Your task to perform on an android device: toggle data saver in the chrome app Image 0: 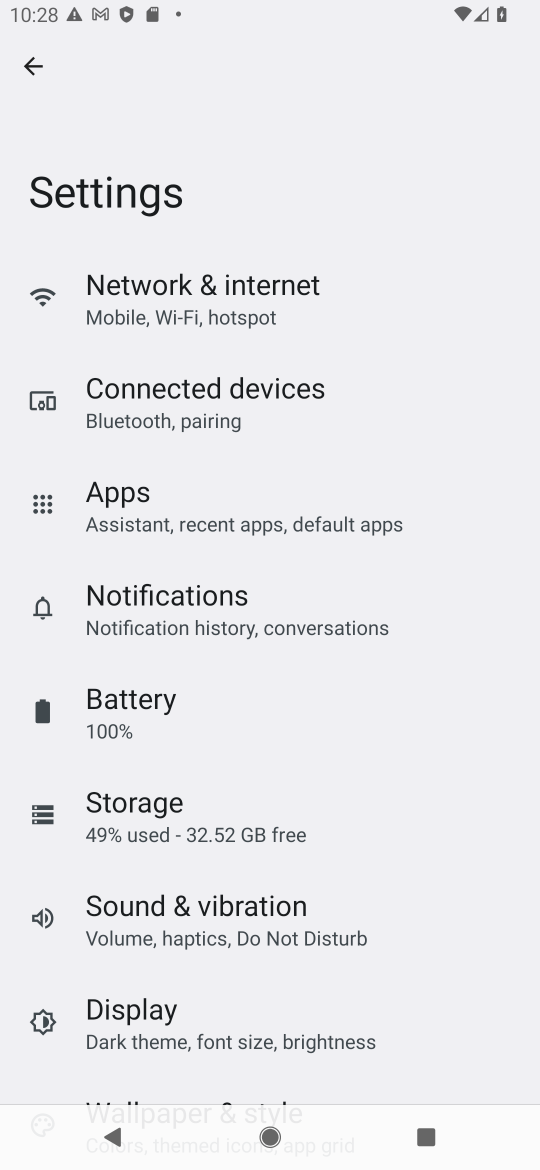
Step 0: press home button
Your task to perform on an android device: toggle data saver in the chrome app Image 1: 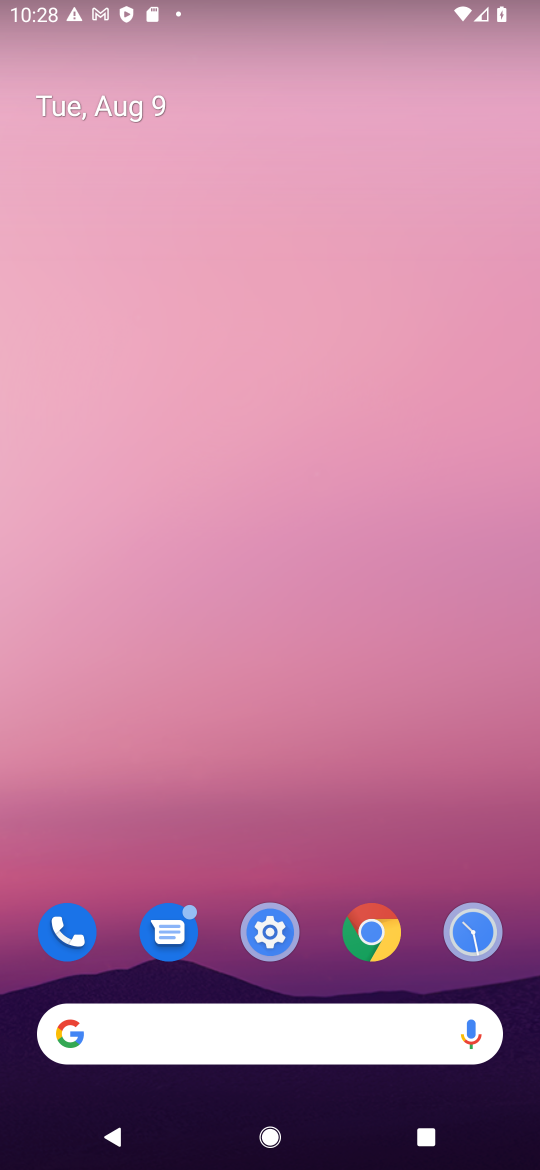
Step 1: drag from (296, 905) to (306, 7)
Your task to perform on an android device: toggle data saver in the chrome app Image 2: 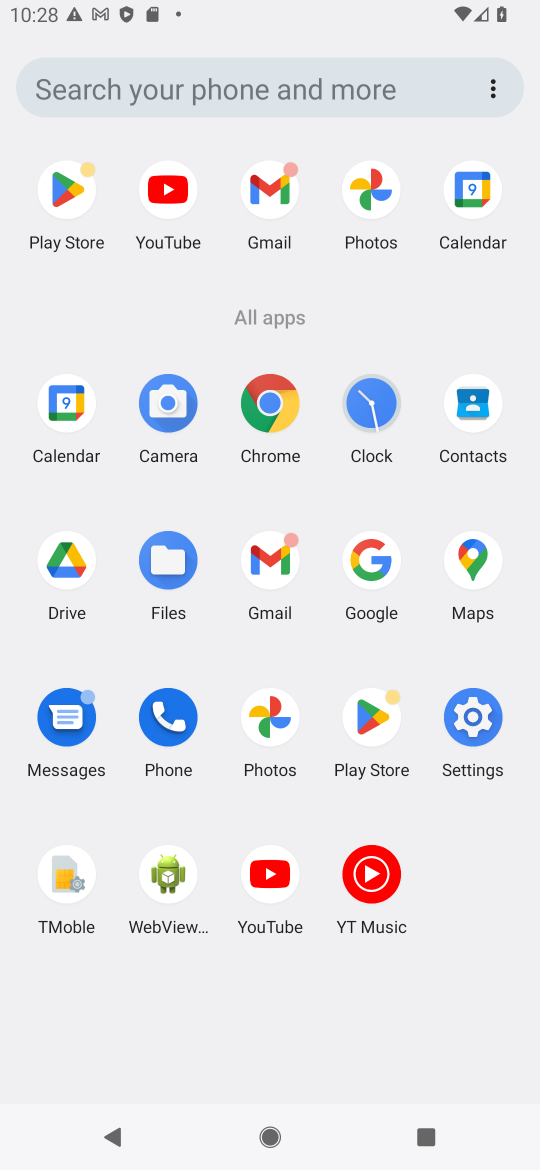
Step 2: click (283, 395)
Your task to perform on an android device: toggle data saver in the chrome app Image 3: 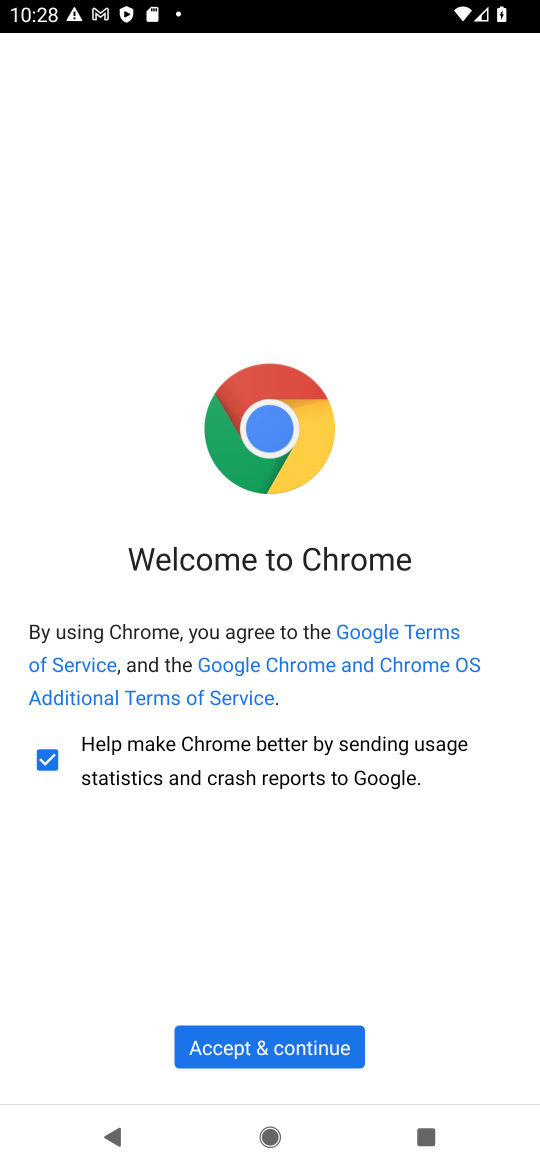
Step 3: click (308, 1022)
Your task to perform on an android device: toggle data saver in the chrome app Image 4: 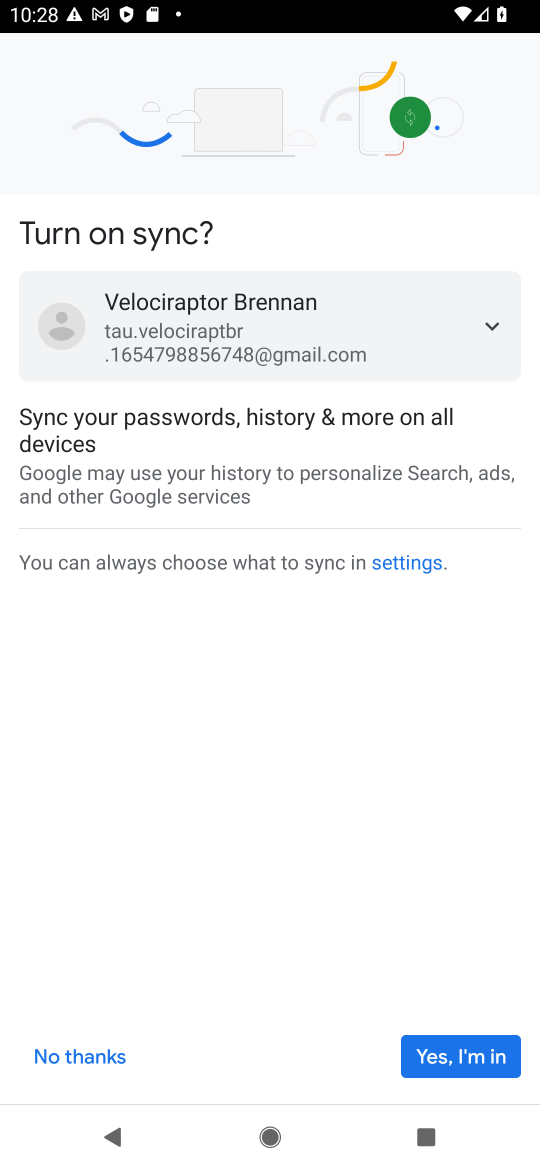
Step 4: click (452, 1057)
Your task to perform on an android device: toggle data saver in the chrome app Image 5: 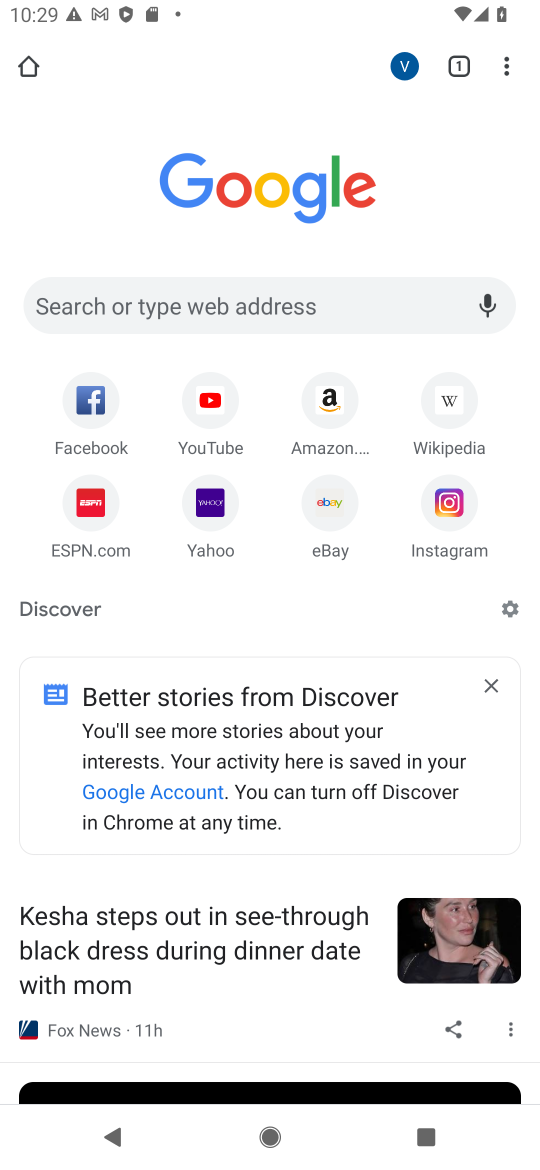
Step 5: click (501, 59)
Your task to perform on an android device: toggle data saver in the chrome app Image 6: 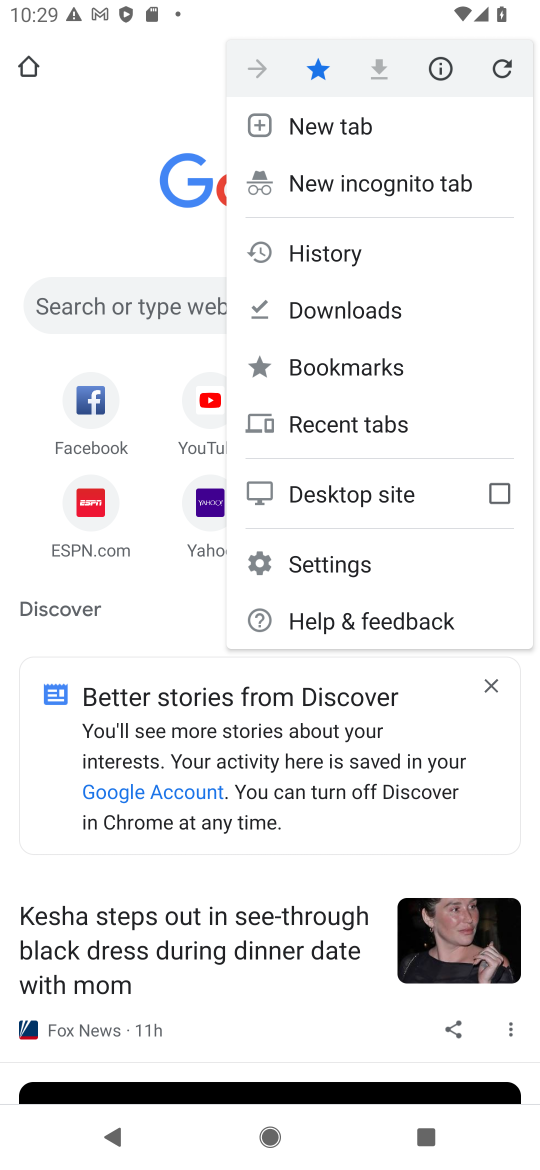
Step 6: click (328, 568)
Your task to perform on an android device: toggle data saver in the chrome app Image 7: 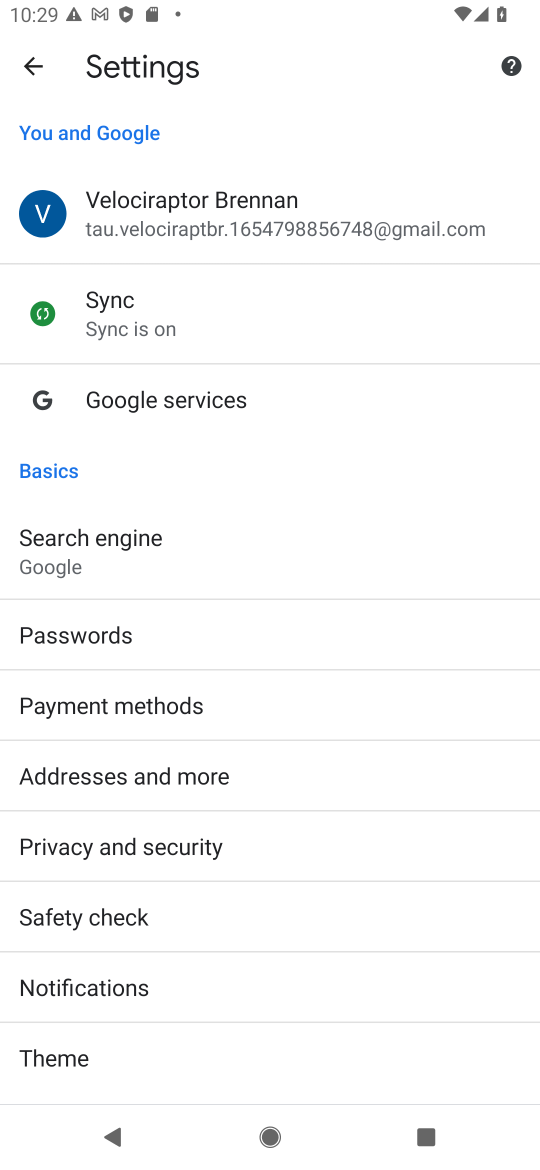
Step 7: drag from (215, 887) to (273, 427)
Your task to perform on an android device: toggle data saver in the chrome app Image 8: 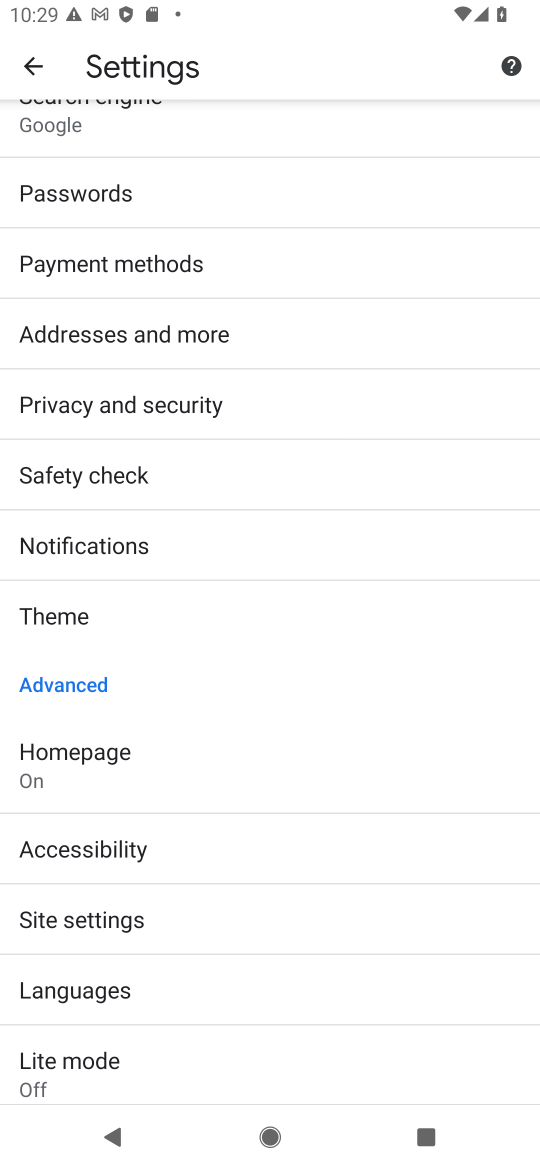
Step 8: click (83, 1055)
Your task to perform on an android device: toggle data saver in the chrome app Image 9: 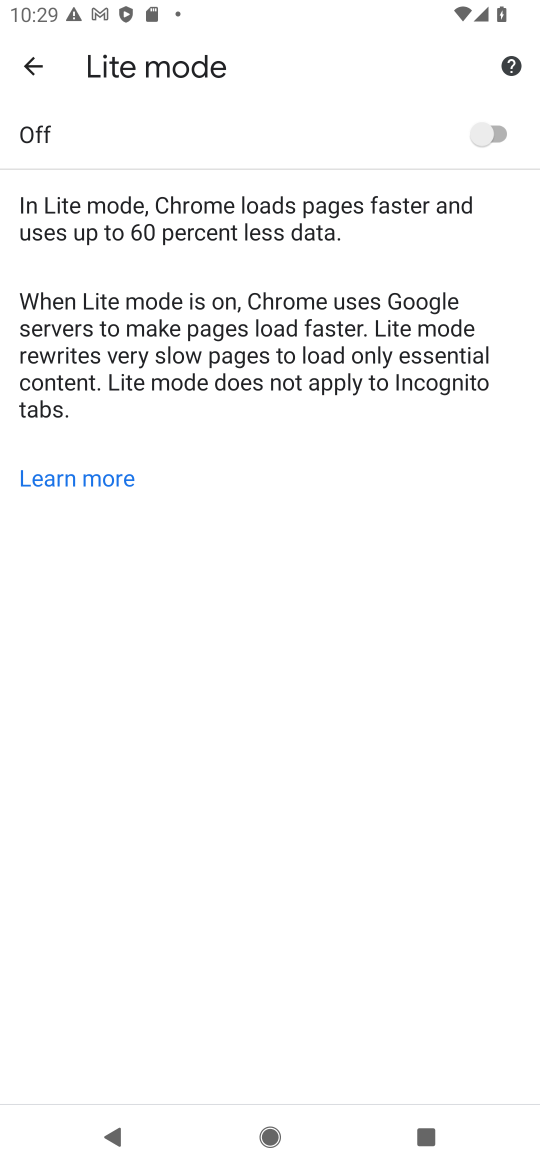
Step 9: click (463, 124)
Your task to perform on an android device: toggle data saver in the chrome app Image 10: 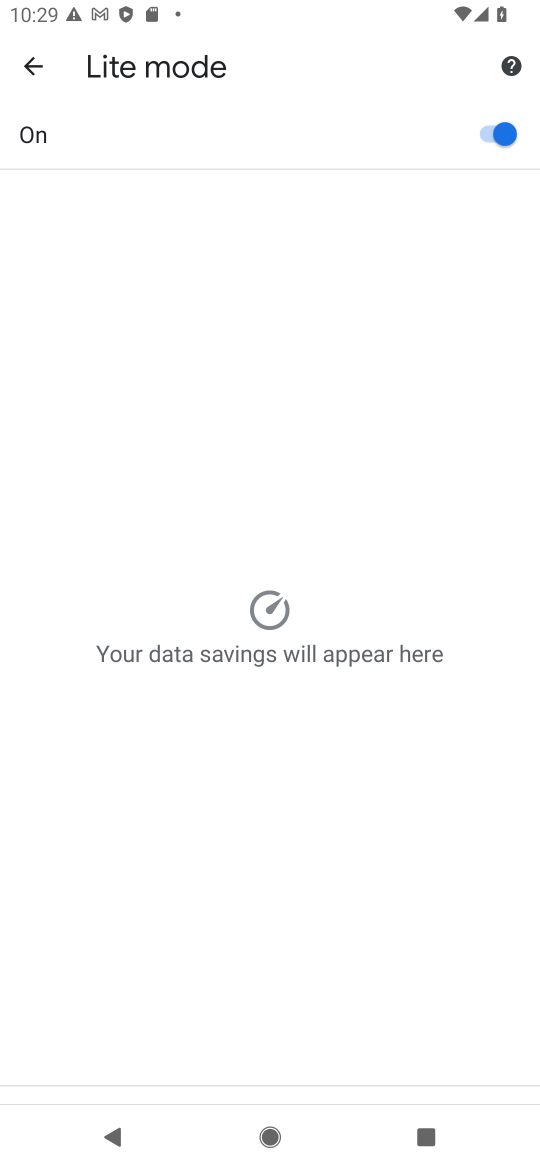
Step 10: task complete